Your task to perform on an android device: Go to display settings Image 0: 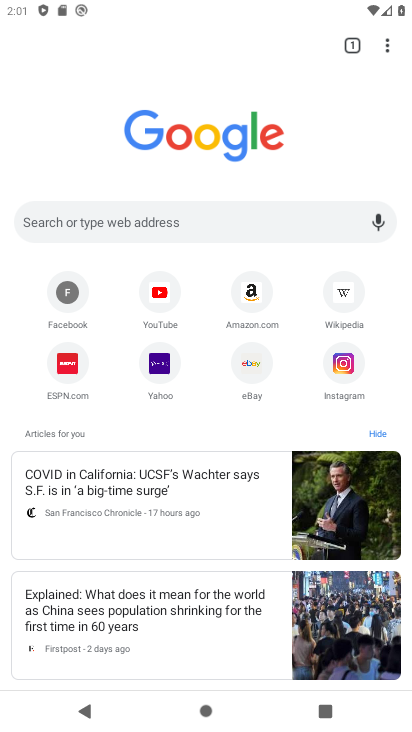
Step 0: press home button
Your task to perform on an android device: Go to display settings Image 1: 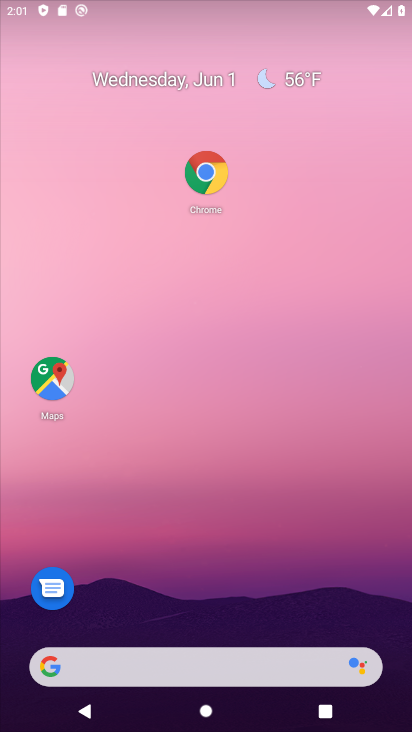
Step 1: drag from (225, 590) to (267, 70)
Your task to perform on an android device: Go to display settings Image 2: 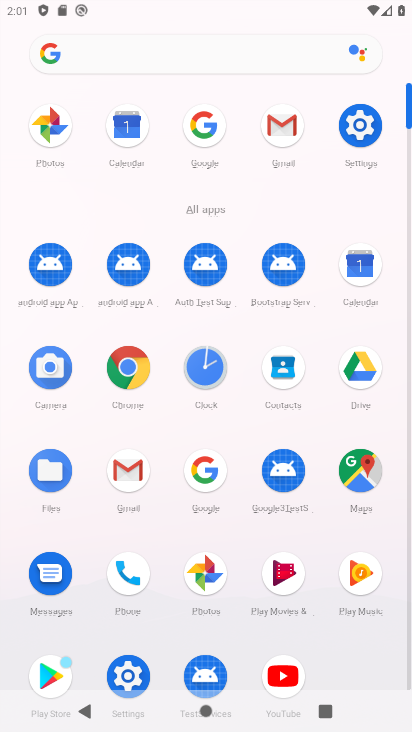
Step 2: click (371, 122)
Your task to perform on an android device: Go to display settings Image 3: 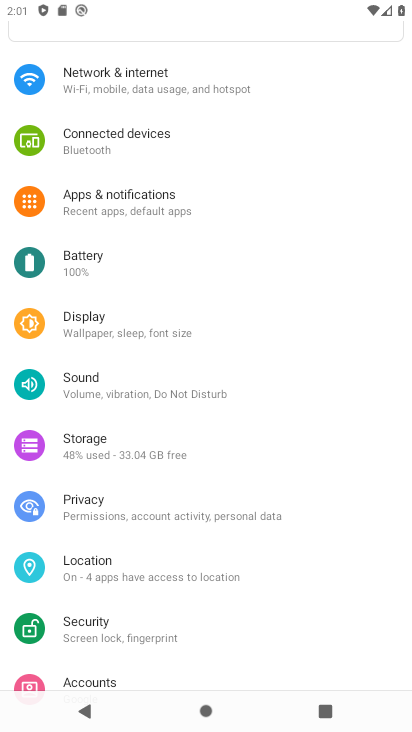
Step 3: click (92, 314)
Your task to perform on an android device: Go to display settings Image 4: 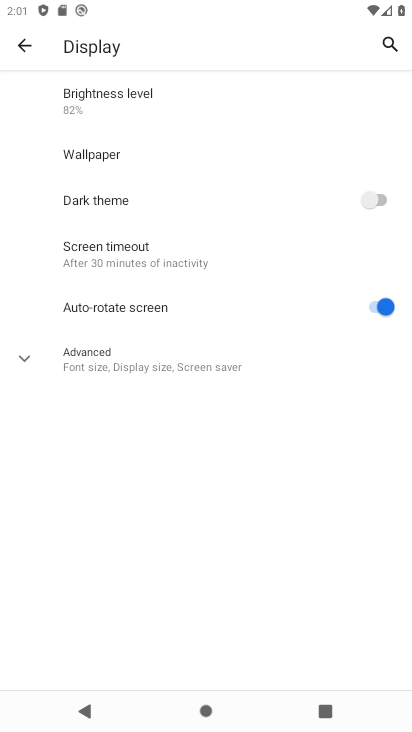
Step 4: task complete